Your task to perform on an android device: create a new album in the google photos Image 0: 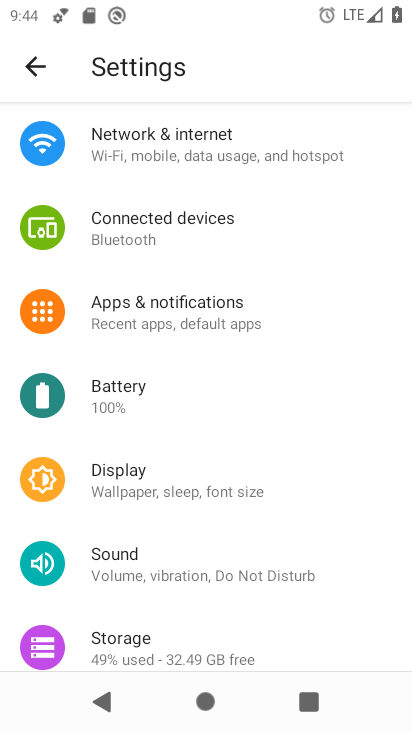
Step 0: press home button
Your task to perform on an android device: create a new album in the google photos Image 1: 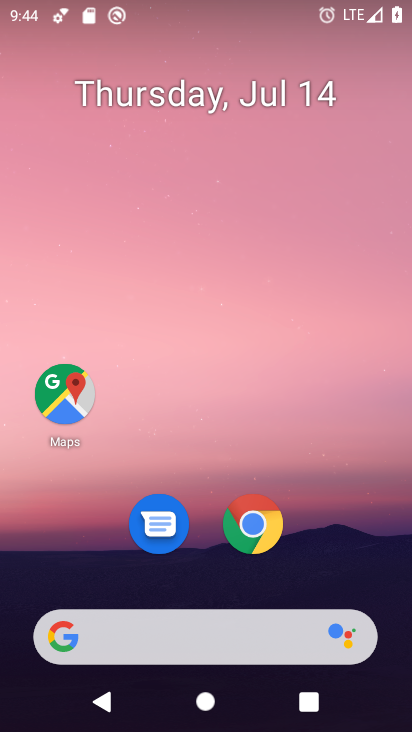
Step 1: drag from (317, 538) to (344, 40)
Your task to perform on an android device: create a new album in the google photos Image 2: 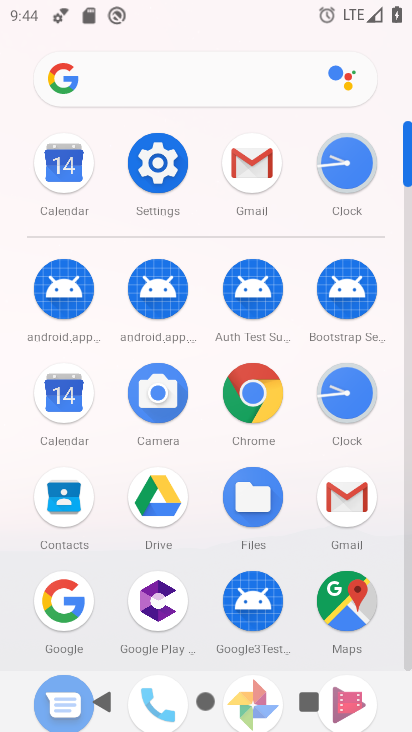
Step 2: drag from (203, 490) to (234, 177)
Your task to perform on an android device: create a new album in the google photos Image 3: 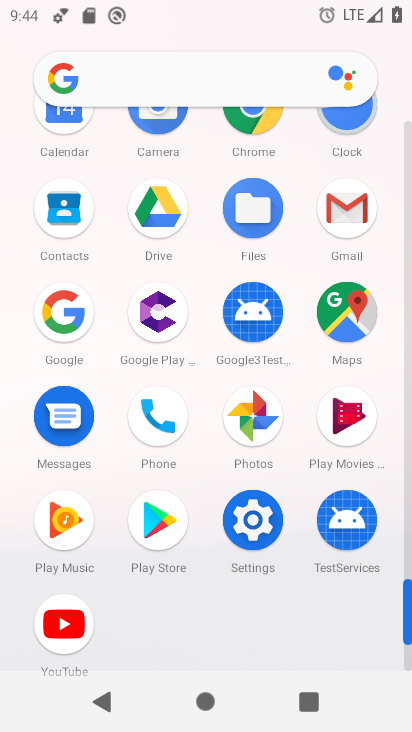
Step 3: click (266, 416)
Your task to perform on an android device: create a new album in the google photos Image 4: 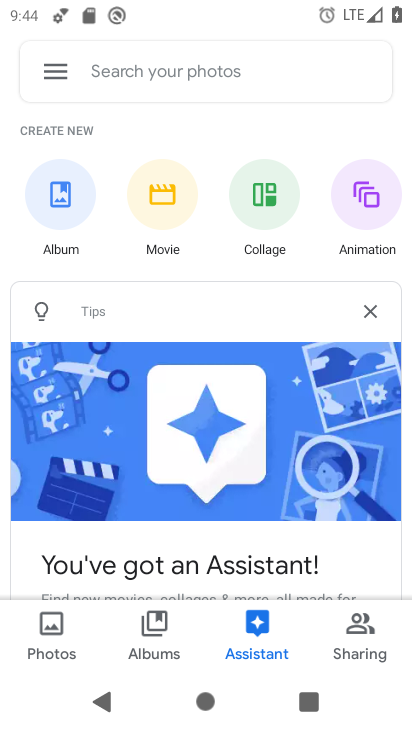
Step 4: click (141, 630)
Your task to perform on an android device: create a new album in the google photos Image 5: 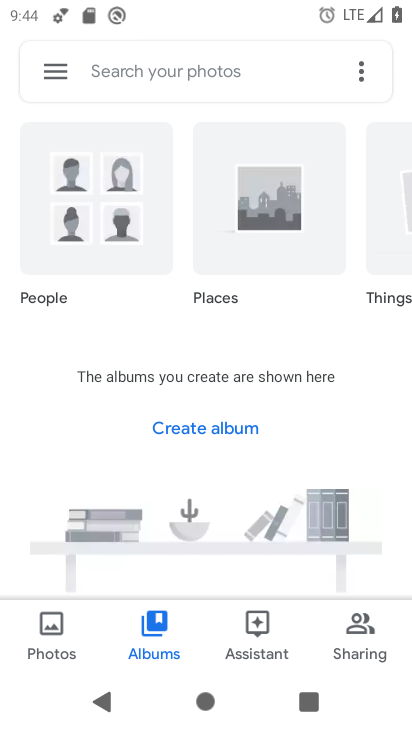
Step 5: click (248, 425)
Your task to perform on an android device: create a new album in the google photos Image 6: 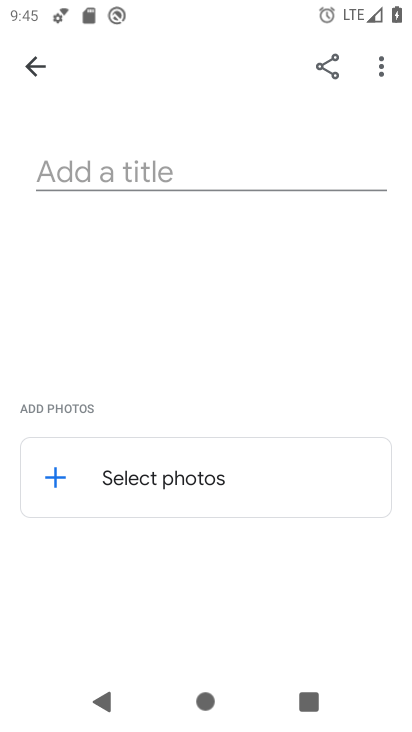
Step 6: click (194, 172)
Your task to perform on an android device: create a new album in the google photos Image 7: 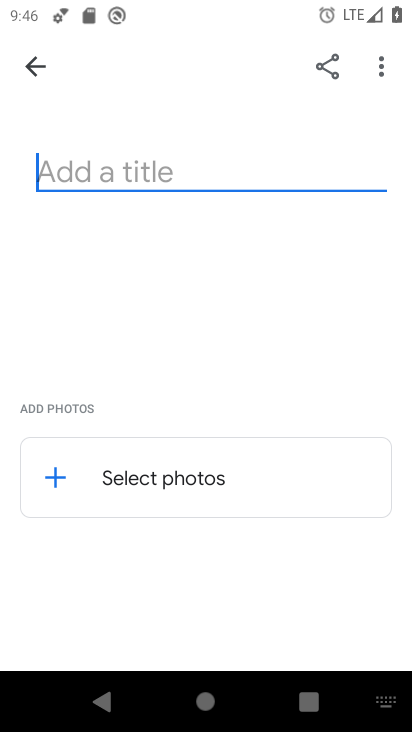
Step 7: type "Prayagraj"
Your task to perform on an android device: create a new album in the google photos Image 8: 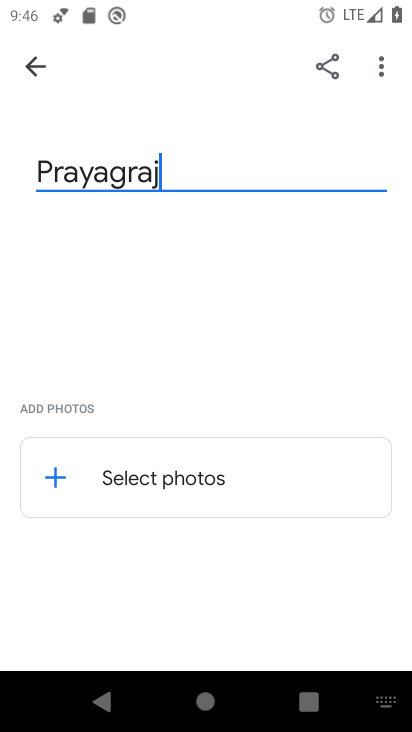
Step 8: task complete